Your task to perform on an android device: open wifi settings Image 0: 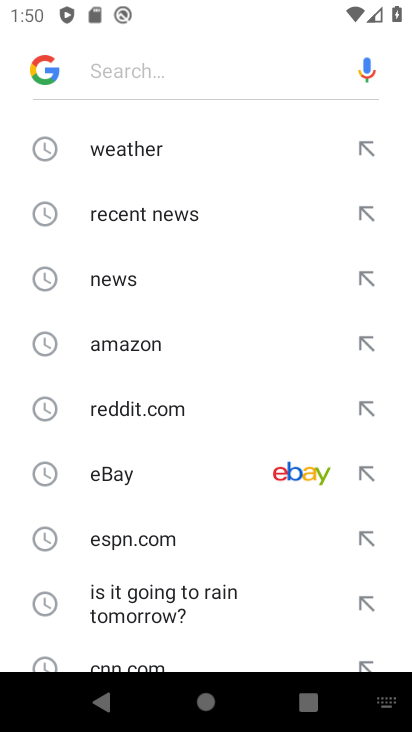
Step 0: press home button
Your task to perform on an android device: open wifi settings Image 1: 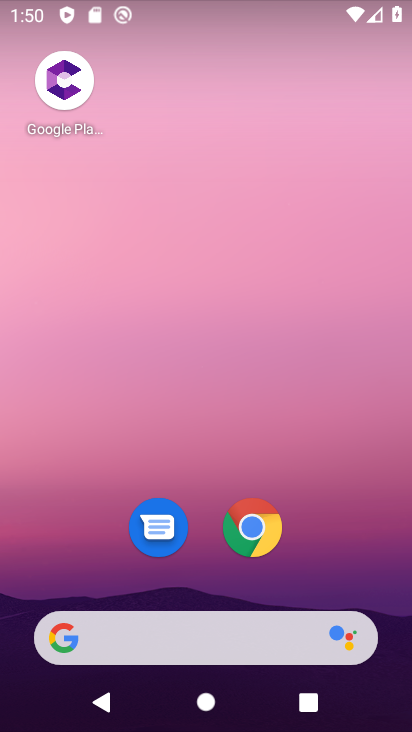
Step 1: drag from (183, 455) to (215, 74)
Your task to perform on an android device: open wifi settings Image 2: 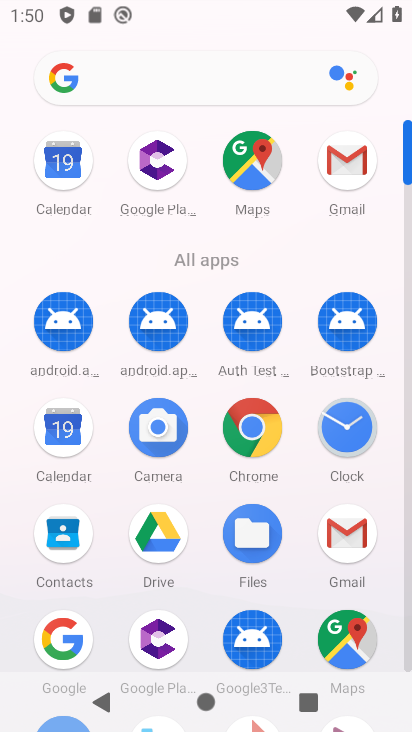
Step 2: drag from (196, 590) to (232, 228)
Your task to perform on an android device: open wifi settings Image 3: 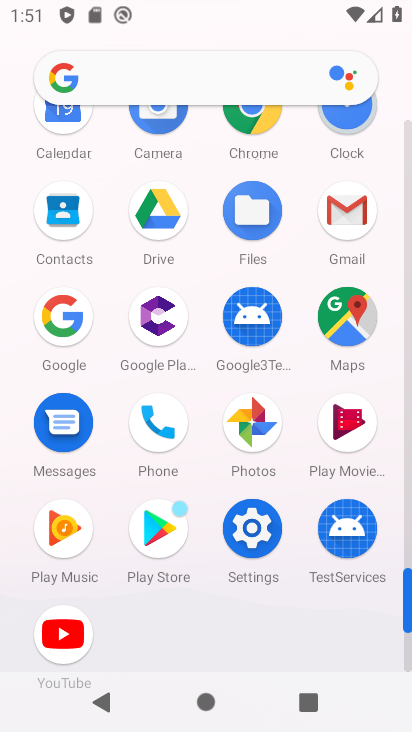
Step 3: click (239, 559)
Your task to perform on an android device: open wifi settings Image 4: 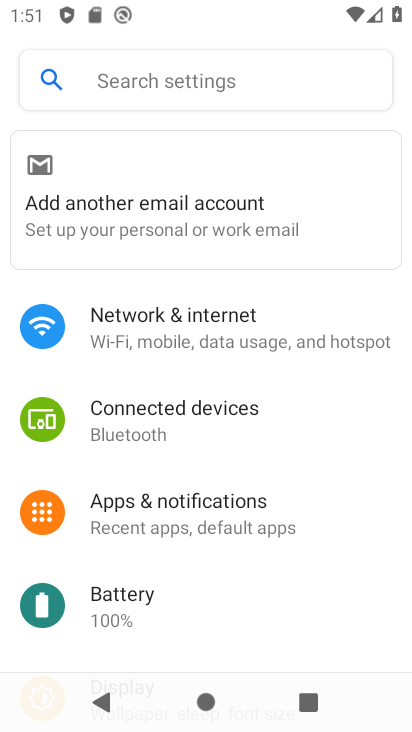
Step 4: click (192, 346)
Your task to perform on an android device: open wifi settings Image 5: 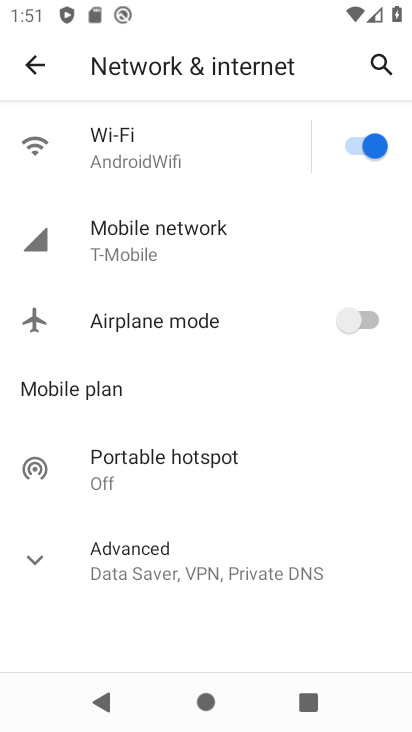
Step 5: click (172, 158)
Your task to perform on an android device: open wifi settings Image 6: 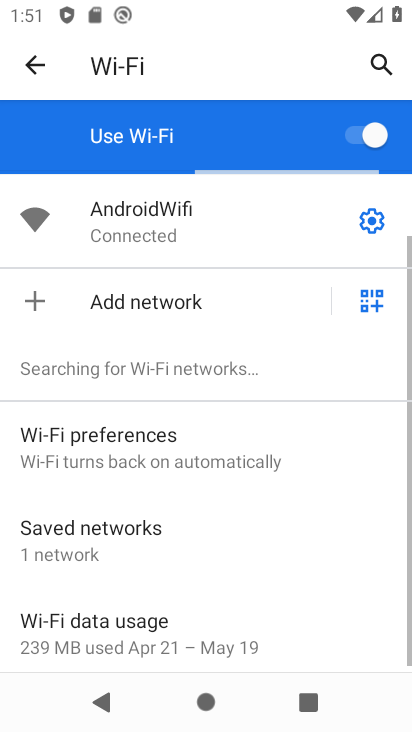
Step 6: task complete